Your task to perform on an android device: Set the phone to "Do not disturb". Image 0: 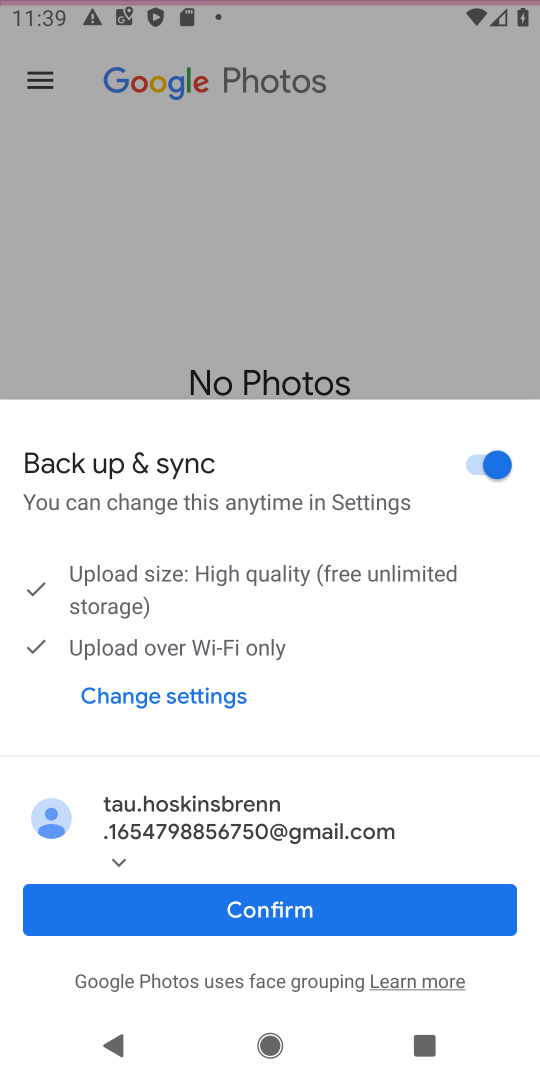
Step 0: press home button
Your task to perform on an android device: Set the phone to "Do not disturb". Image 1: 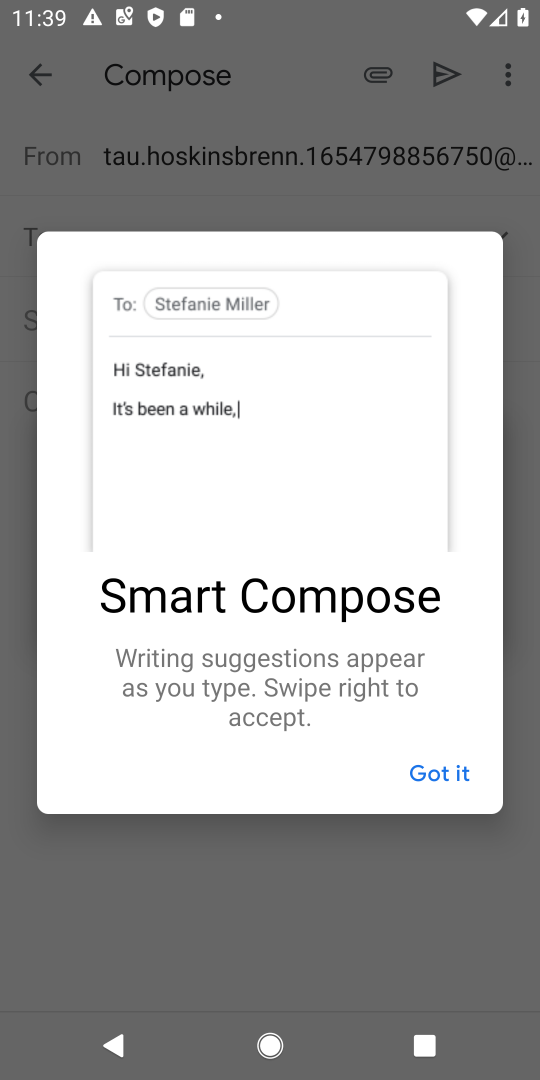
Step 1: press home button
Your task to perform on an android device: Set the phone to "Do not disturb". Image 2: 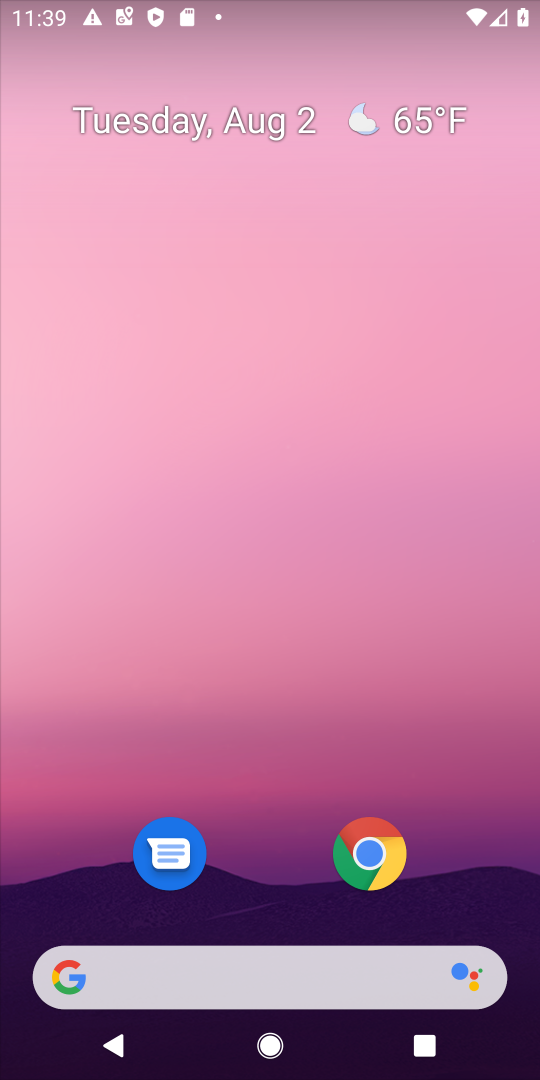
Step 2: drag from (401, 9) to (520, 1040)
Your task to perform on an android device: Set the phone to "Do not disturb". Image 3: 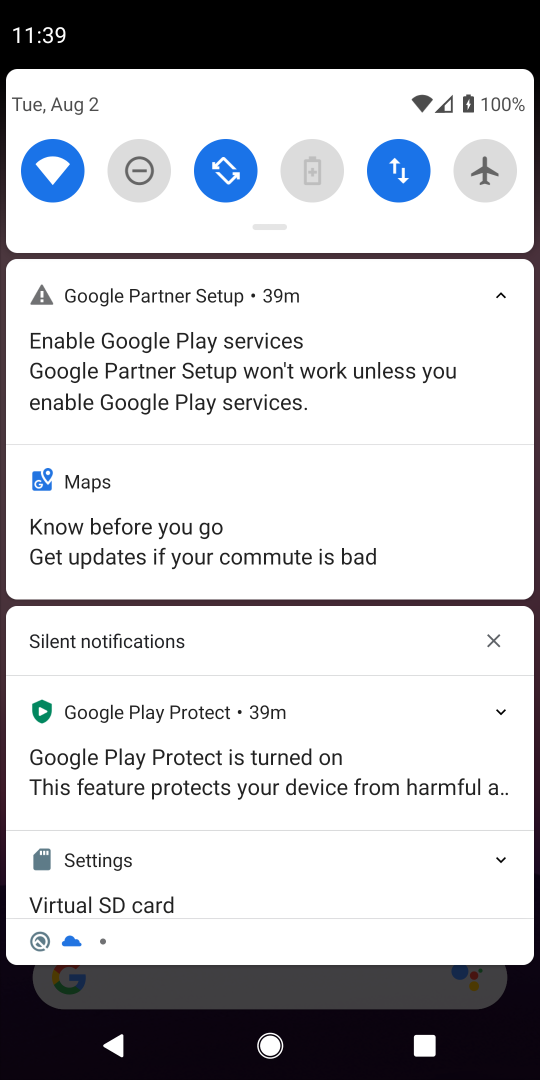
Step 3: drag from (278, 221) to (268, 1020)
Your task to perform on an android device: Set the phone to "Do not disturb". Image 4: 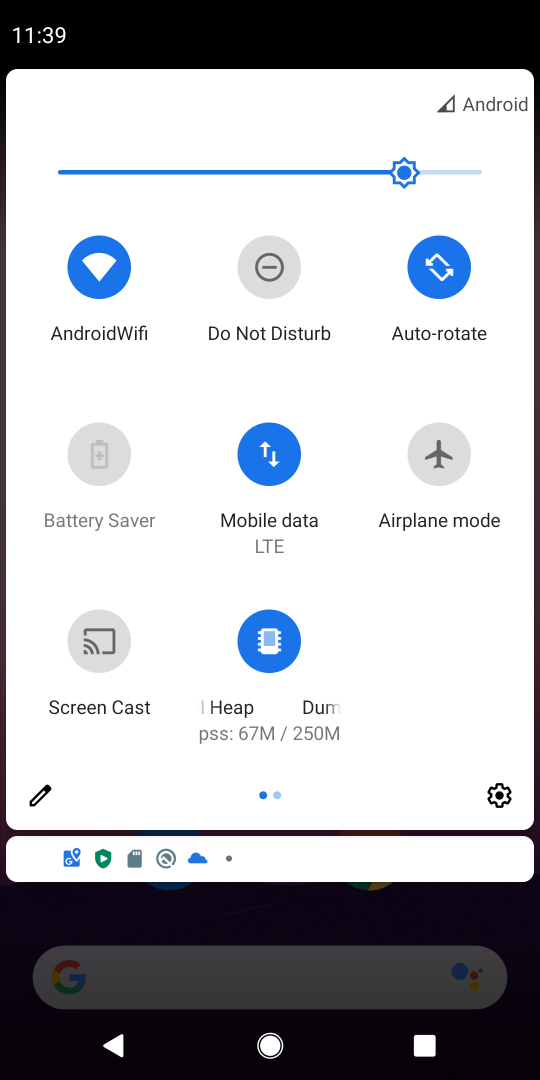
Step 4: click (251, 288)
Your task to perform on an android device: Set the phone to "Do not disturb". Image 5: 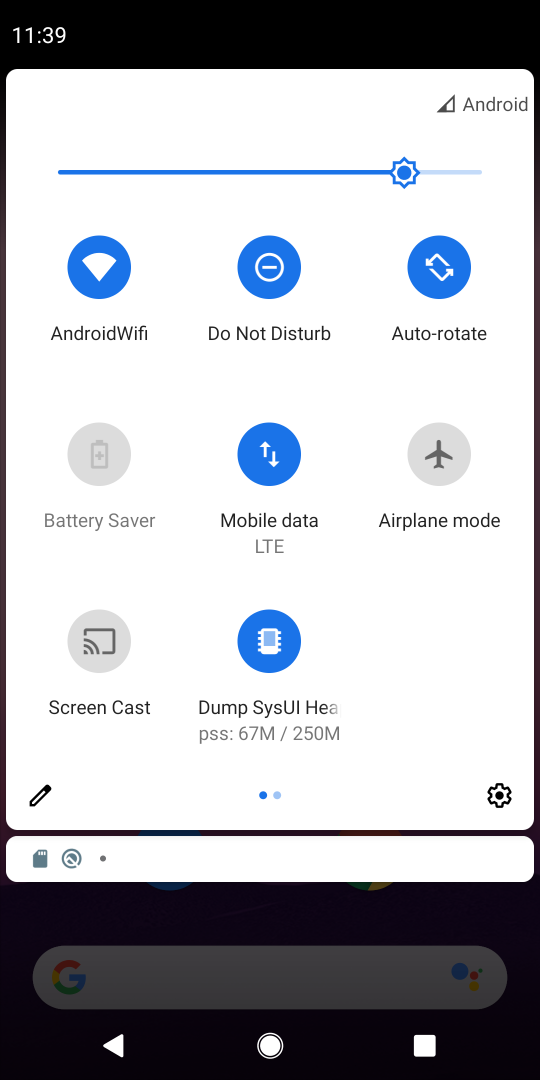
Step 5: task complete